Your task to perform on an android device: change notifications settings Image 0: 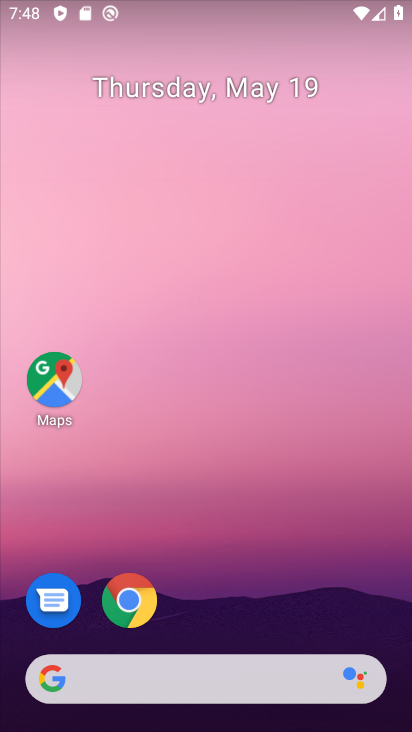
Step 0: click (67, 376)
Your task to perform on an android device: change notifications settings Image 1: 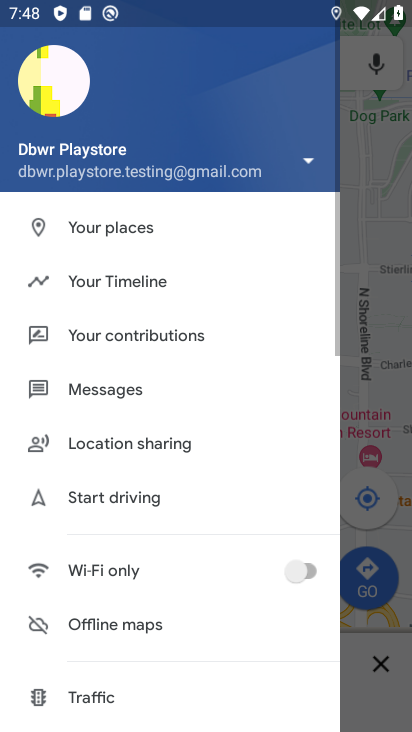
Step 1: press home button
Your task to perform on an android device: change notifications settings Image 2: 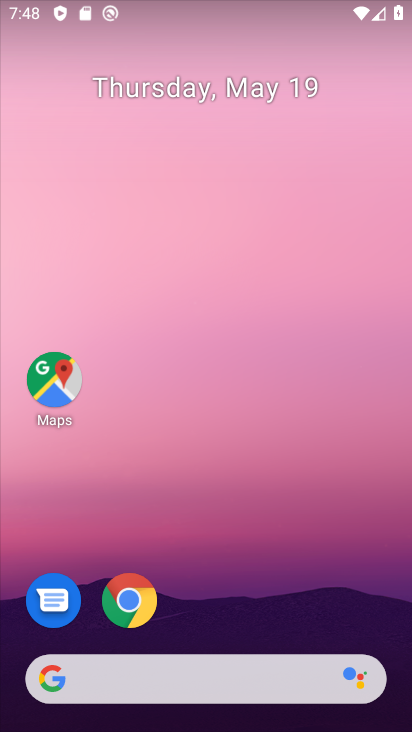
Step 2: drag from (274, 594) to (138, 23)
Your task to perform on an android device: change notifications settings Image 3: 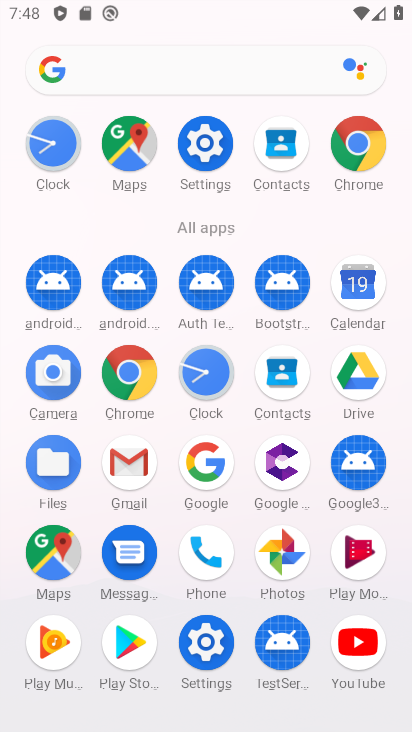
Step 3: click (207, 175)
Your task to perform on an android device: change notifications settings Image 4: 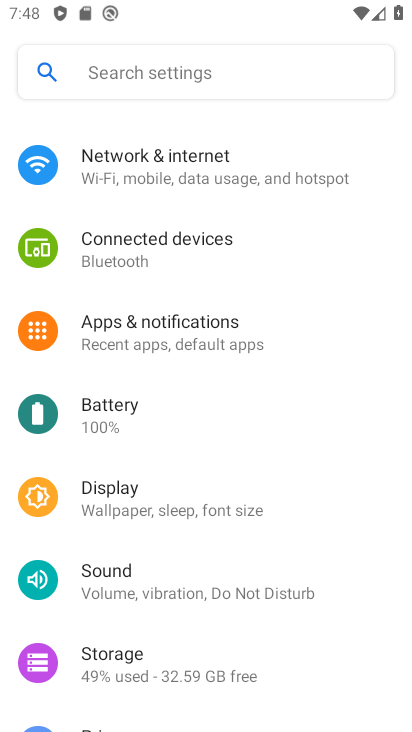
Step 4: click (196, 362)
Your task to perform on an android device: change notifications settings Image 5: 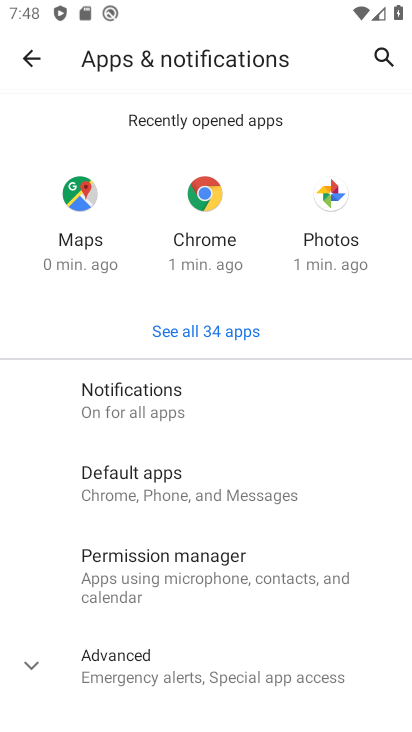
Step 5: click (202, 685)
Your task to perform on an android device: change notifications settings Image 6: 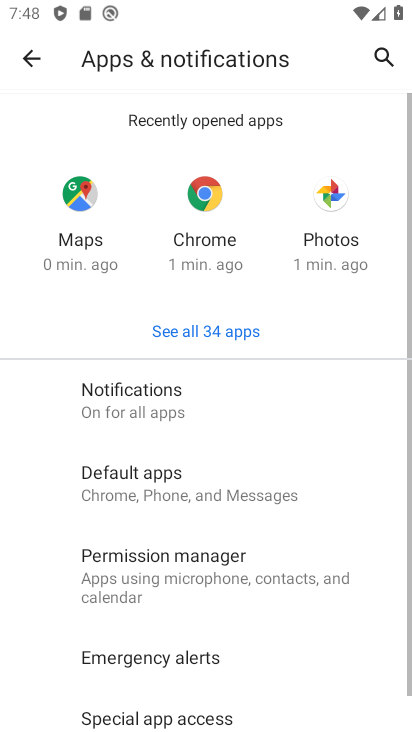
Step 6: click (163, 392)
Your task to perform on an android device: change notifications settings Image 7: 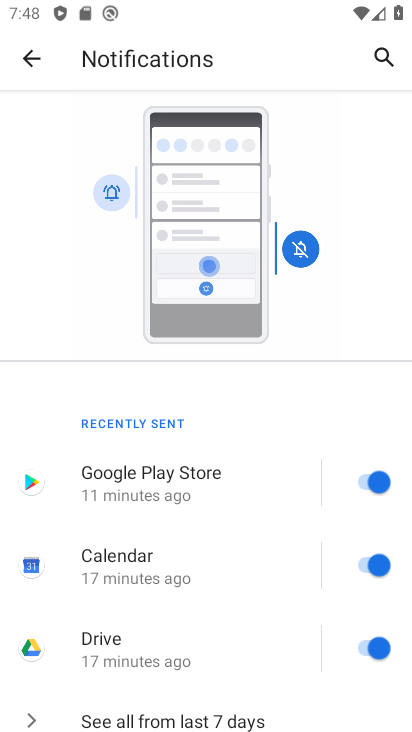
Step 7: drag from (273, 589) to (275, 397)
Your task to perform on an android device: change notifications settings Image 8: 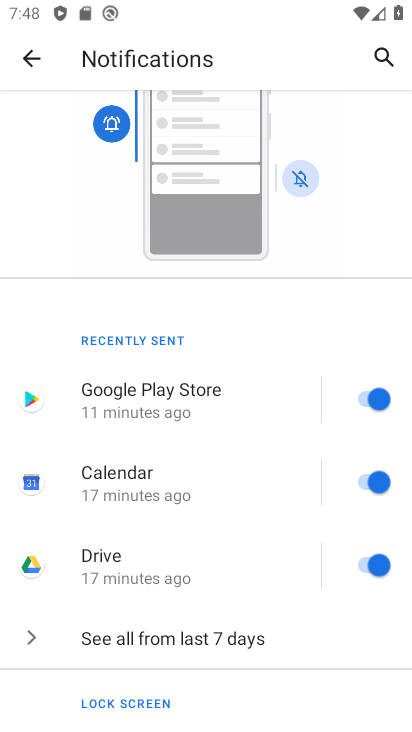
Step 8: drag from (326, 711) to (319, 494)
Your task to perform on an android device: change notifications settings Image 9: 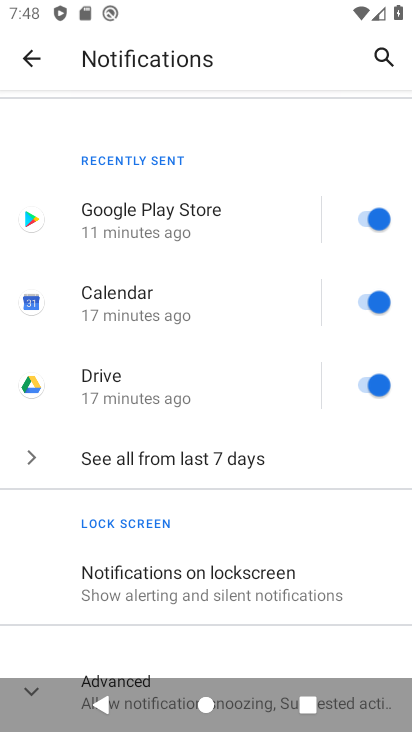
Step 9: click (329, 666)
Your task to perform on an android device: change notifications settings Image 10: 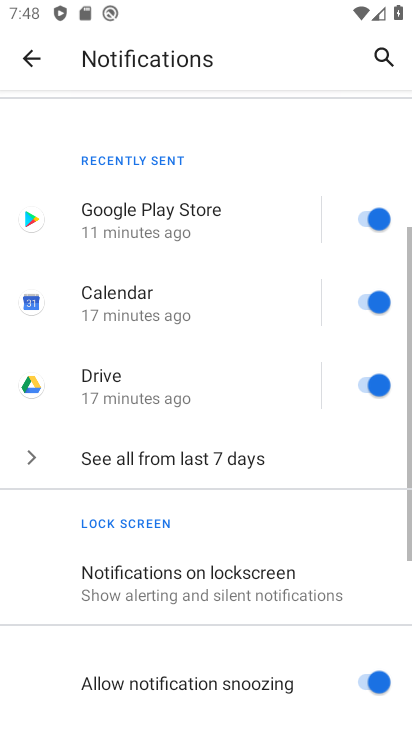
Step 10: click (335, 668)
Your task to perform on an android device: change notifications settings Image 11: 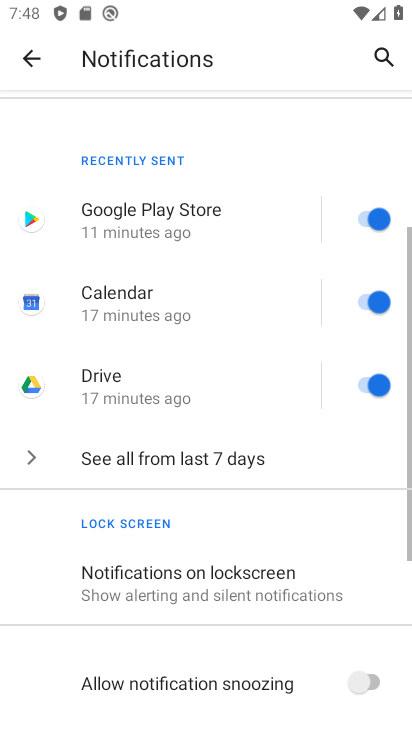
Step 11: task complete